Your task to perform on an android device: toggle notification dots Image 0: 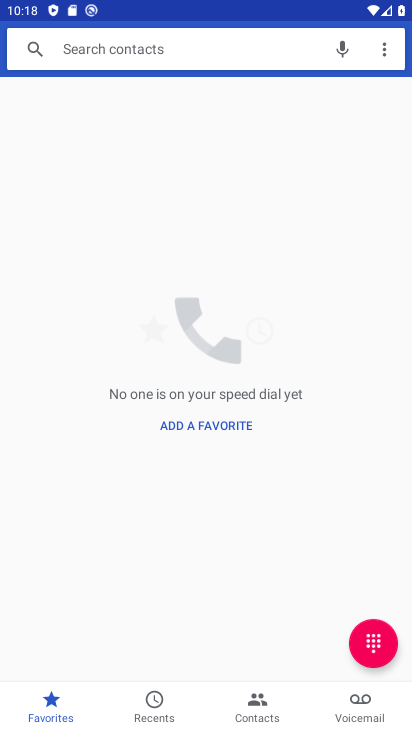
Step 0: press home button
Your task to perform on an android device: toggle notification dots Image 1: 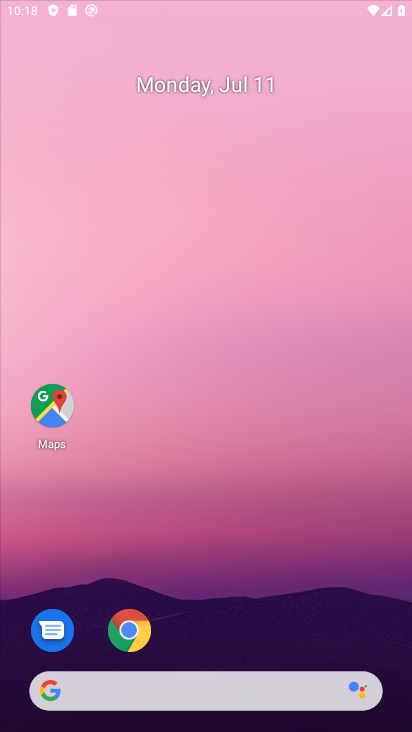
Step 1: drag from (202, 657) to (263, 0)
Your task to perform on an android device: toggle notification dots Image 2: 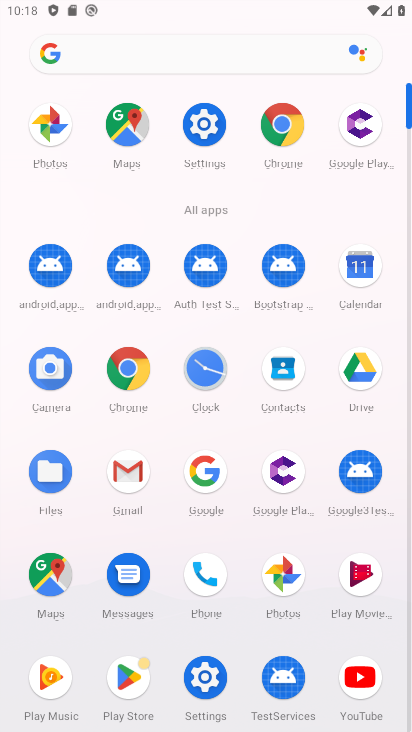
Step 2: click (202, 137)
Your task to perform on an android device: toggle notification dots Image 3: 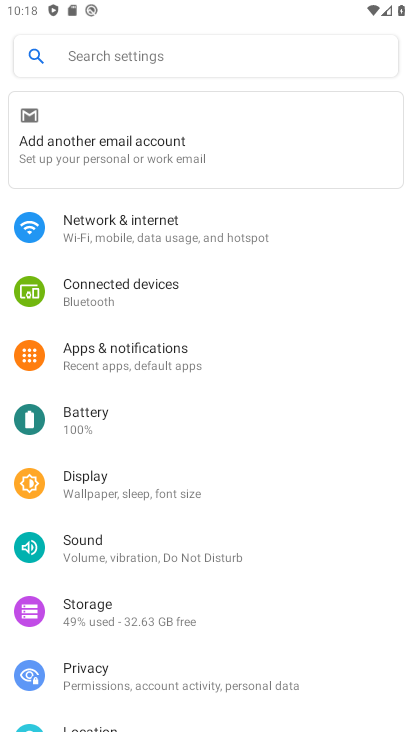
Step 3: click (175, 346)
Your task to perform on an android device: toggle notification dots Image 4: 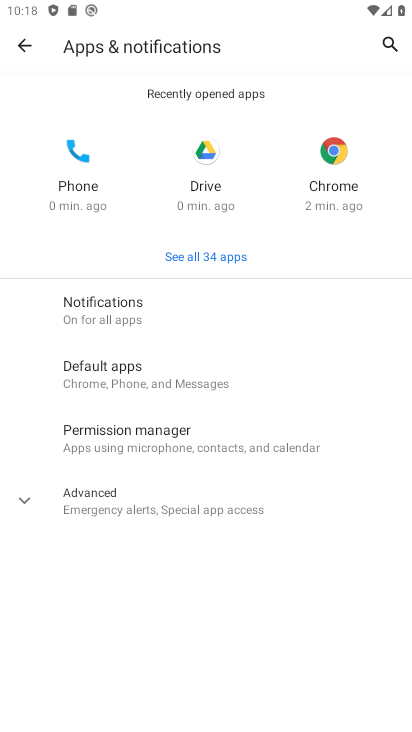
Step 4: click (154, 311)
Your task to perform on an android device: toggle notification dots Image 5: 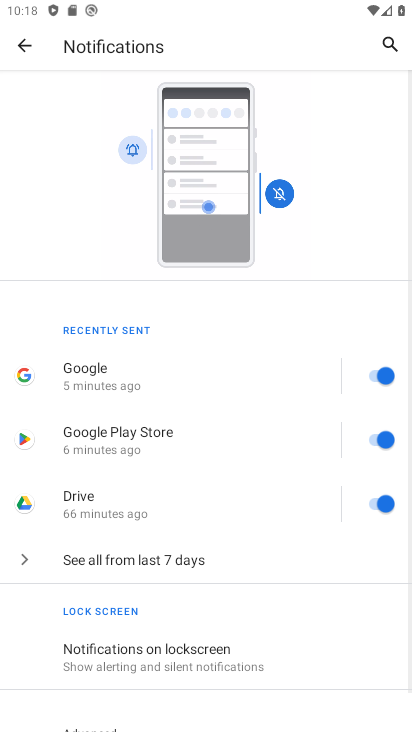
Step 5: drag from (188, 675) to (218, 204)
Your task to perform on an android device: toggle notification dots Image 6: 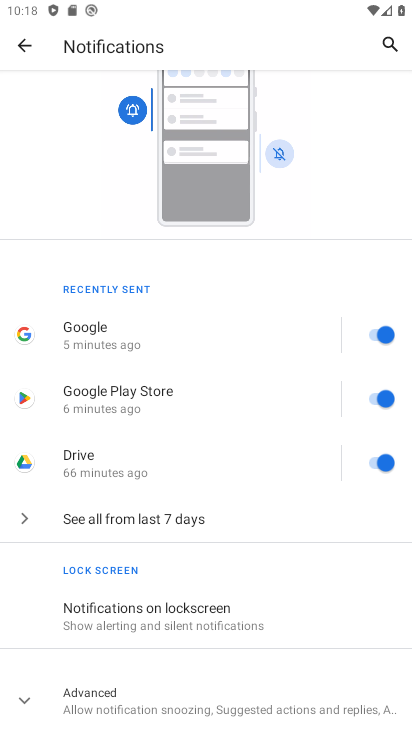
Step 6: click (106, 715)
Your task to perform on an android device: toggle notification dots Image 7: 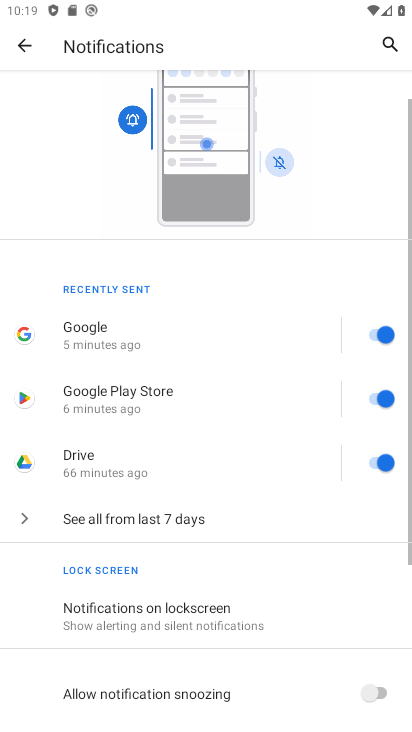
Step 7: drag from (114, 700) to (146, 227)
Your task to perform on an android device: toggle notification dots Image 8: 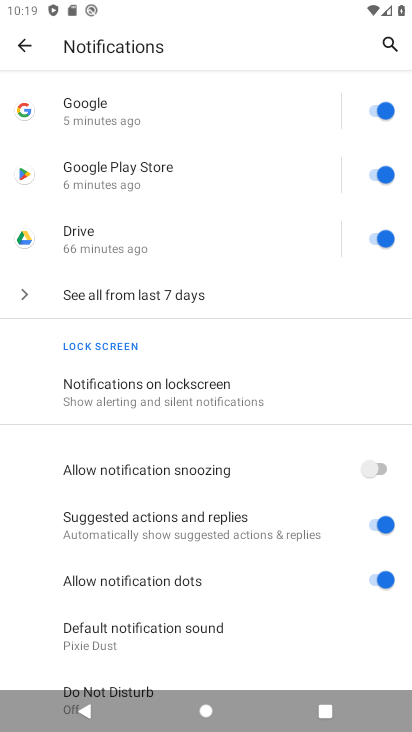
Step 8: click (375, 582)
Your task to perform on an android device: toggle notification dots Image 9: 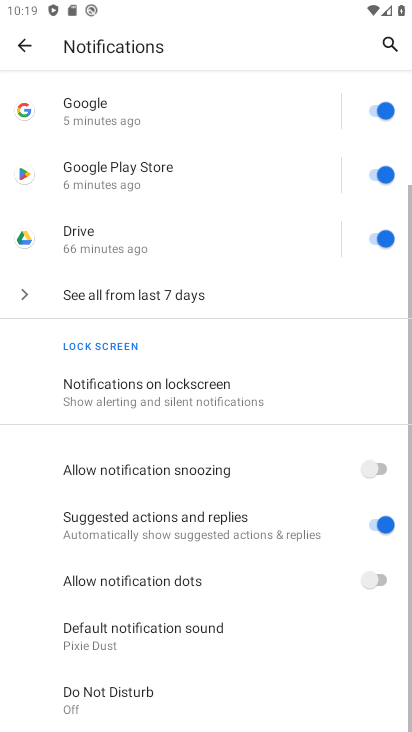
Step 9: task complete